Your task to perform on an android device: Do I have any events tomorrow? Image 0: 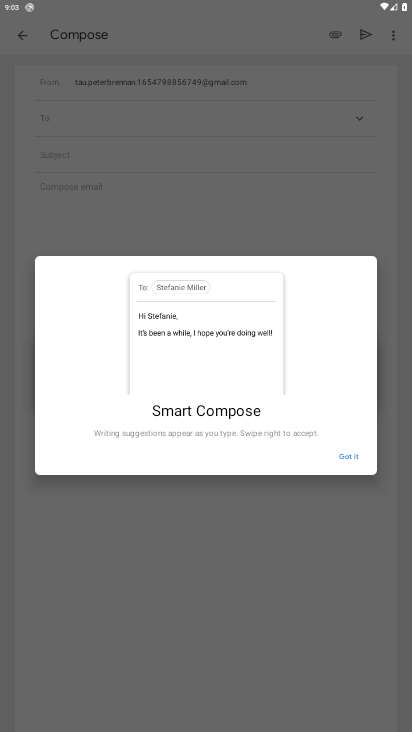
Step 0: press home button
Your task to perform on an android device: Do I have any events tomorrow? Image 1: 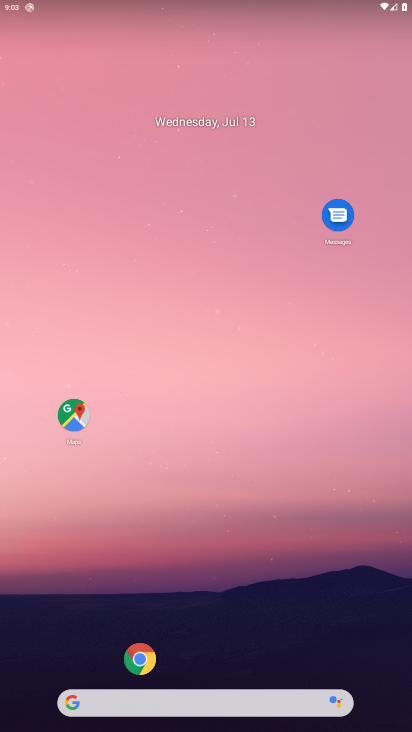
Step 1: drag from (33, 686) to (183, 142)
Your task to perform on an android device: Do I have any events tomorrow? Image 2: 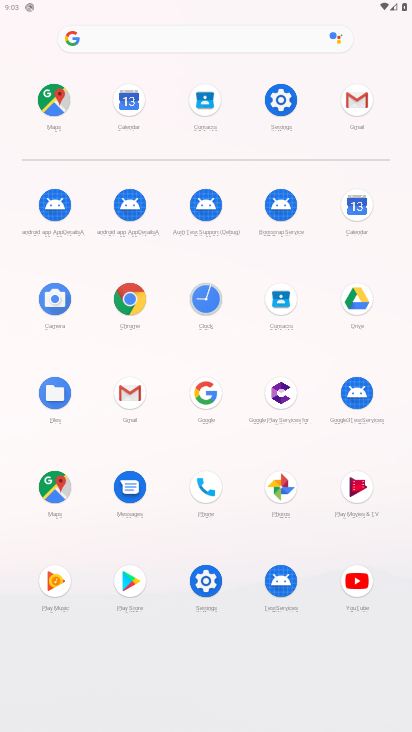
Step 2: click (354, 222)
Your task to perform on an android device: Do I have any events tomorrow? Image 3: 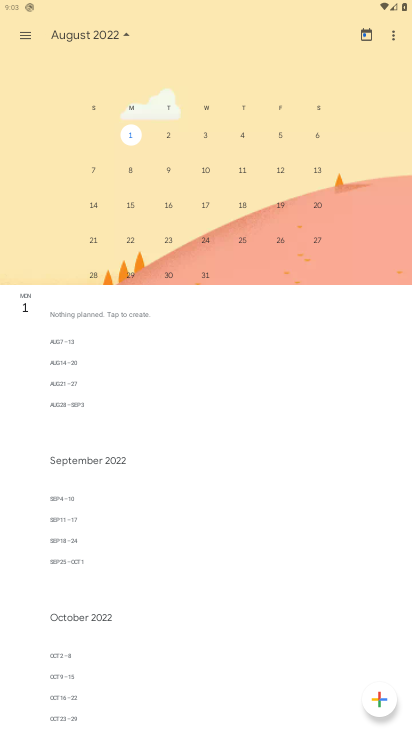
Step 3: task complete